Your task to perform on an android device: Open Youtube and go to "Your channel" Image 0: 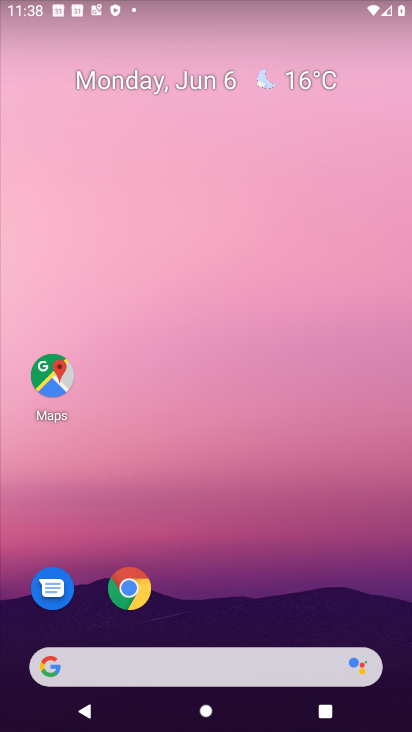
Step 0: drag from (224, 636) to (133, 15)
Your task to perform on an android device: Open Youtube and go to "Your channel" Image 1: 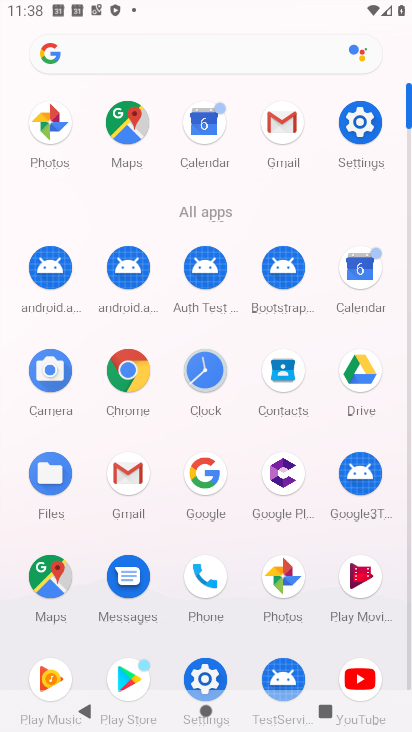
Step 1: click (368, 675)
Your task to perform on an android device: Open Youtube and go to "Your channel" Image 2: 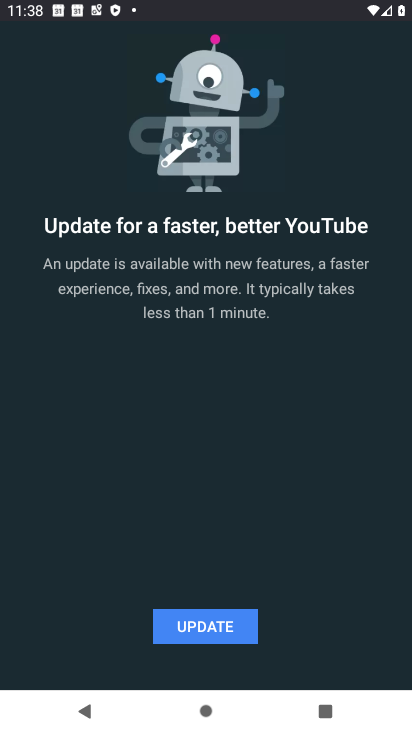
Step 2: click (243, 629)
Your task to perform on an android device: Open Youtube and go to "Your channel" Image 3: 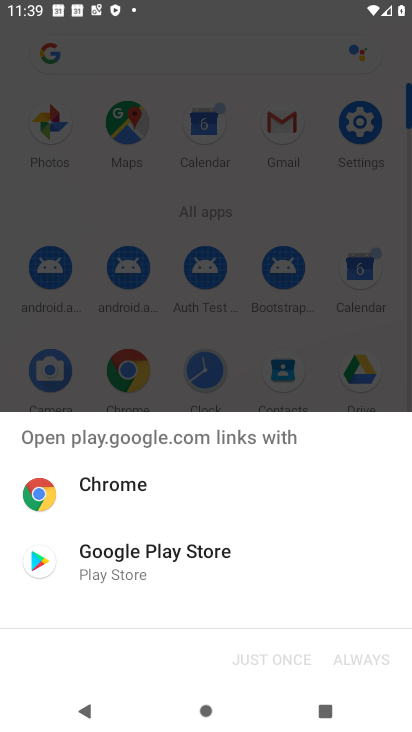
Step 3: click (174, 568)
Your task to perform on an android device: Open Youtube and go to "Your channel" Image 4: 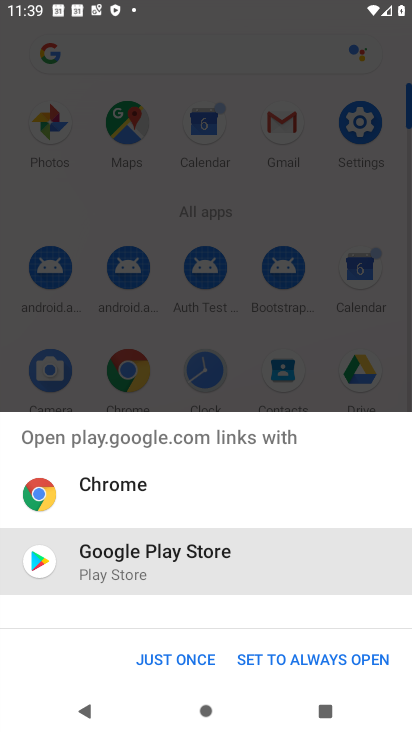
Step 4: click (155, 666)
Your task to perform on an android device: Open Youtube and go to "Your channel" Image 5: 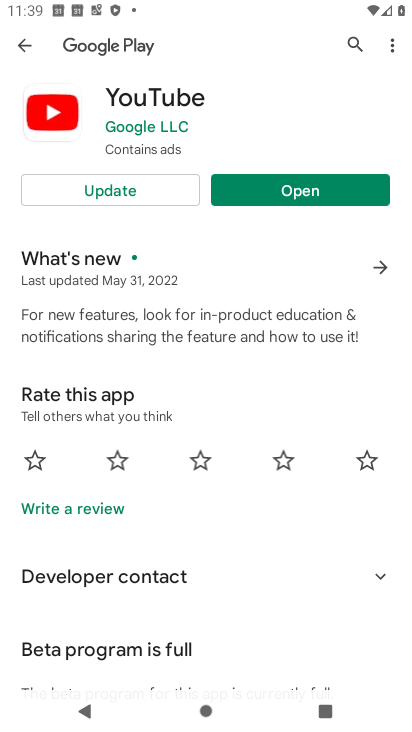
Step 5: click (157, 187)
Your task to perform on an android device: Open Youtube and go to "Your channel" Image 6: 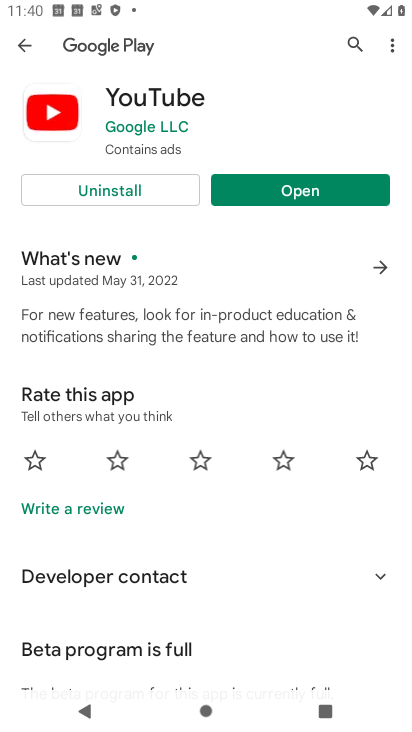
Step 6: click (321, 193)
Your task to perform on an android device: Open Youtube and go to "Your channel" Image 7: 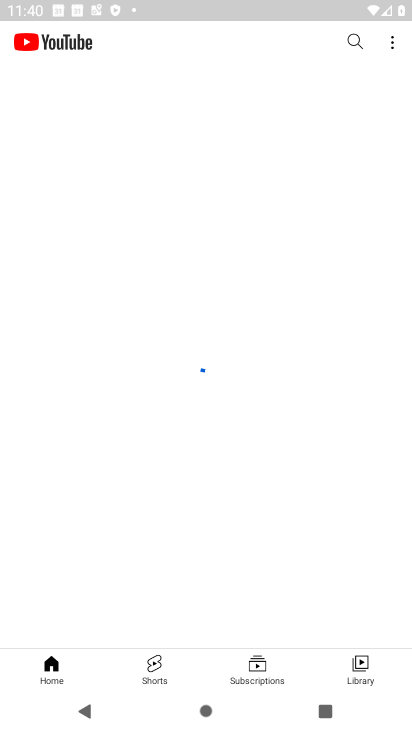
Step 7: click (389, 42)
Your task to perform on an android device: Open Youtube and go to "Your channel" Image 8: 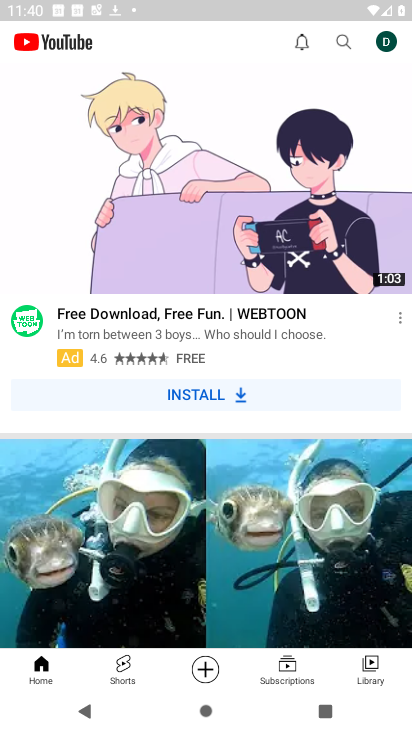
Step 8: click (372, 51)
Your task to perform on an android device: Open Youtube and go to "Your channel" Image 9: 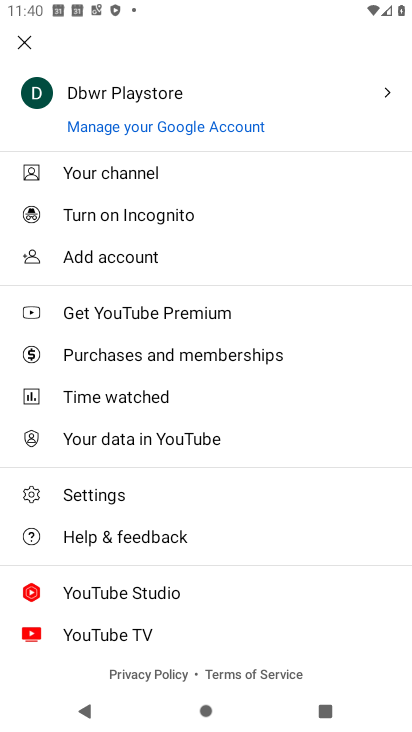
Step 9: click (154, 168)
Your task to perform on an android device: Open Youtube and go to "Your channel" Image 10: 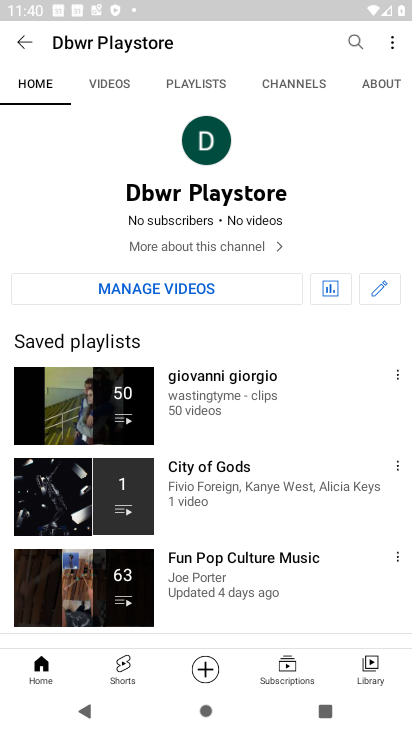
Step 10: task complete